Your task to perform on an android device: toggle airplane mode Image 0: 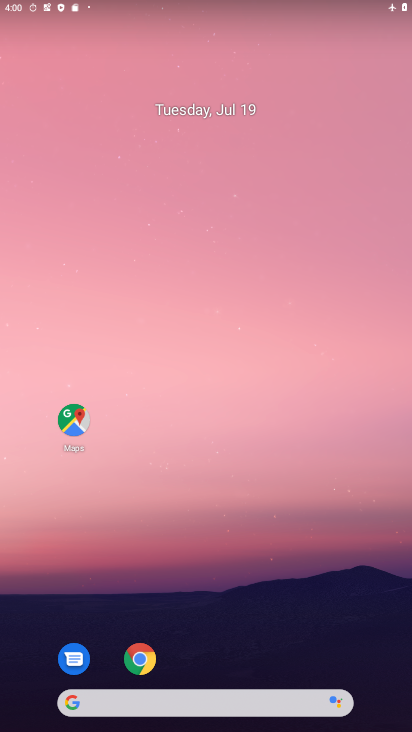
Step 0: drag from (264, 517) to (208, 0)
Your task to perform on an android device: toggle airplane mode Image 1: 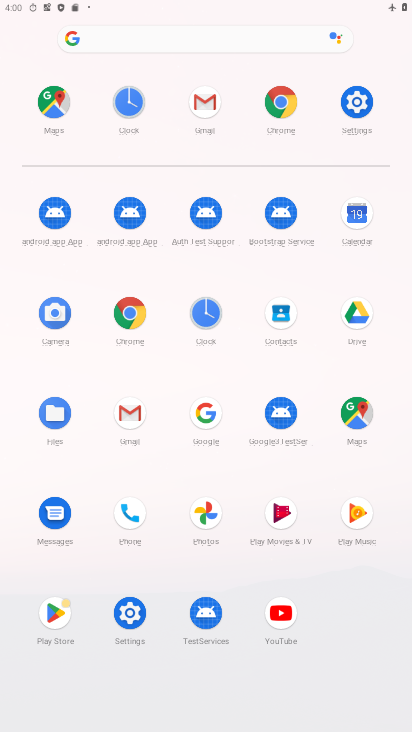
Step 1: click (358, 97)
Your task to perform on an android device: toggle airplane mode Image 2: 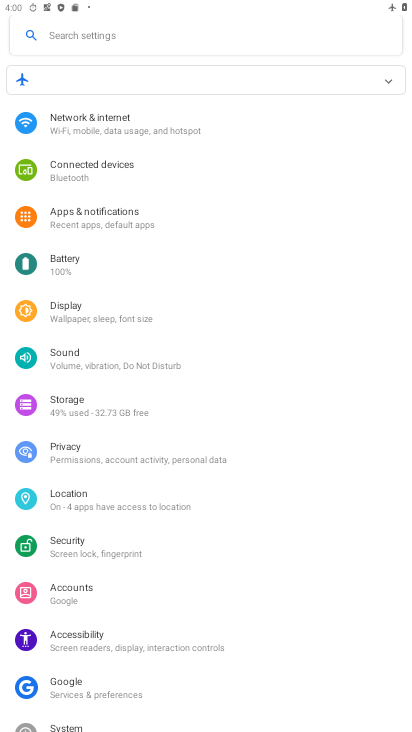
Step 2: click (84, 125)
Your task to perform on an android device: toggle airplane mode Image 3: 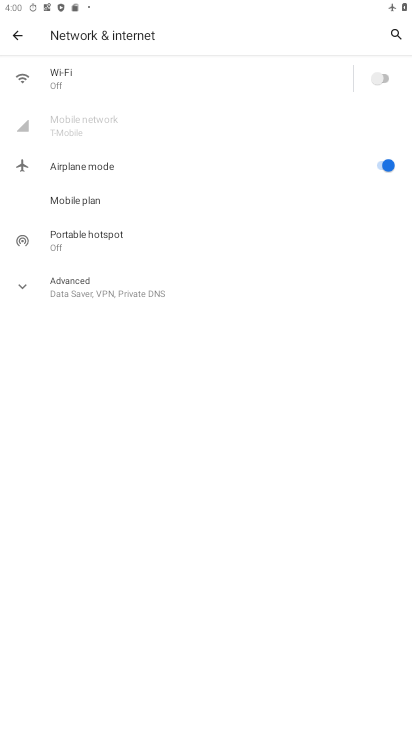
Step 3: click (387, 167)
Your task to perform on an android device: toggle airplane mode Image 4: 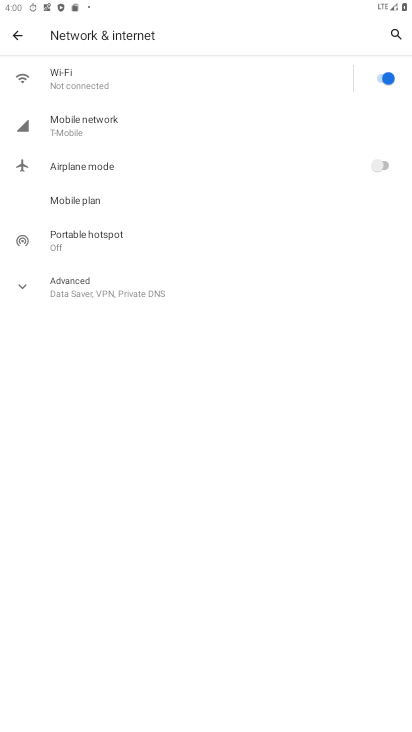
Step 4: task complete